Your task to perform on an android device: move an email to a new category in the gmail app Image 0: 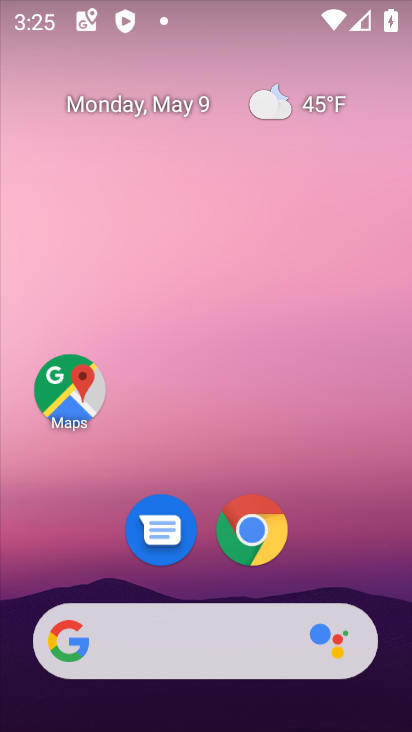
Step 0: drag from (334, 627) to (188, 17)
Your task to perform on an android device: move an email to a new category in the gmail app Image 1: 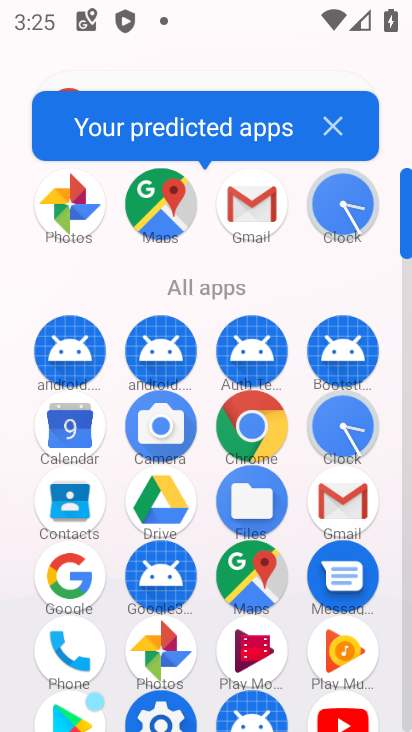
Step 1: click (341, 499)
Your task to perform on an android device: move an email to a new category in the gmail app Image 2: 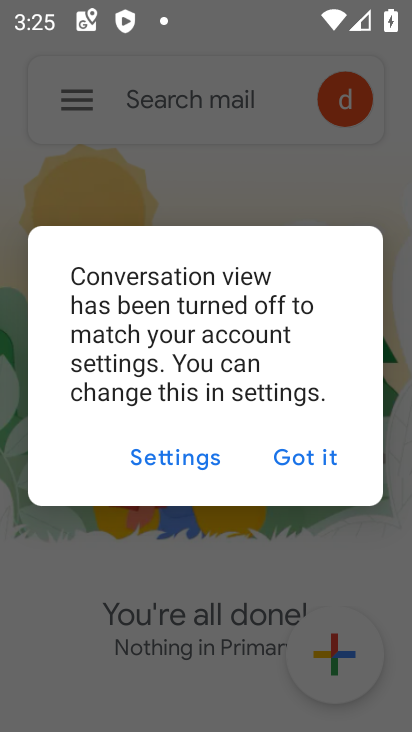
Step 2: click (280, 452)
Your task to perform on an android device: move an email to a new category in the gmail app Image 3: 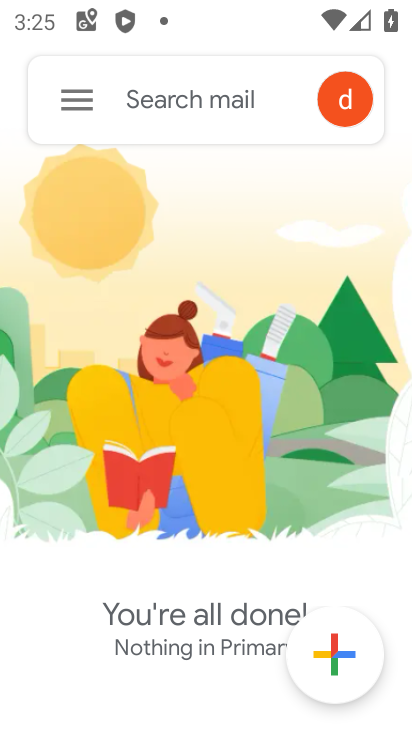
Step 3: click (78, 99)
Your task to perform on an android device: move an email to a new category in the gmail app Image 4: 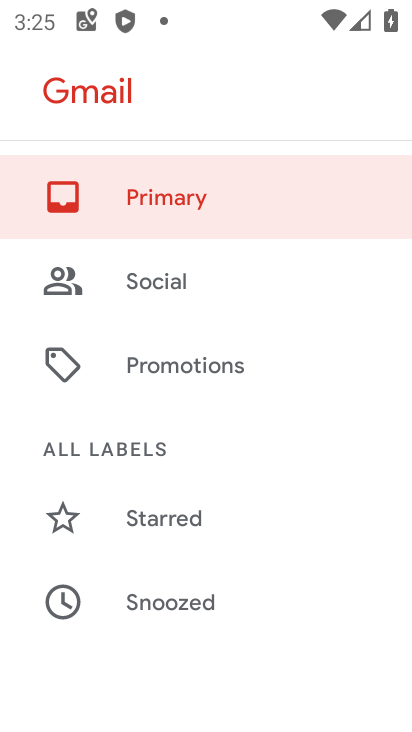
Step 4: drag from (155, 491) to (120, 18)
Your task to perform on an android device: move an email to a new category in the gmail app Image 5: 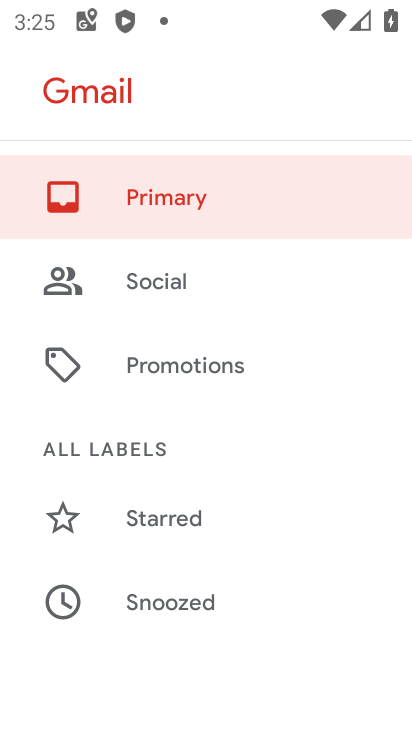
Step 5: drag from (168, 348) to (146, 4)
Your task to perform on an android device: move an email to a new category in the gmail app Image 6: 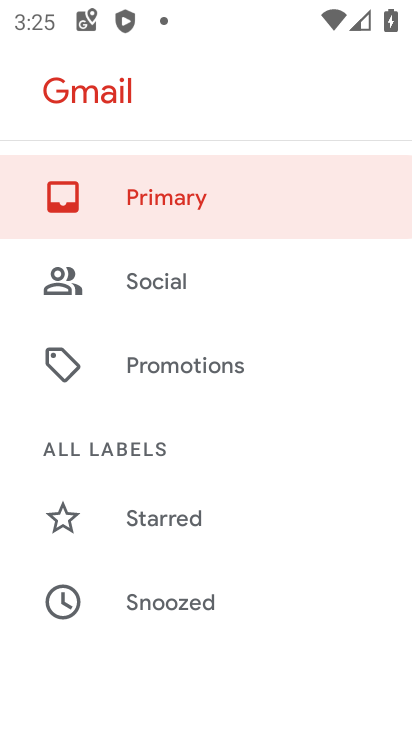
Step 6: drag from (257, 581) to (330, 25)
Your task to perform on an android device: move an email to a new category in the gmail app Image 7: 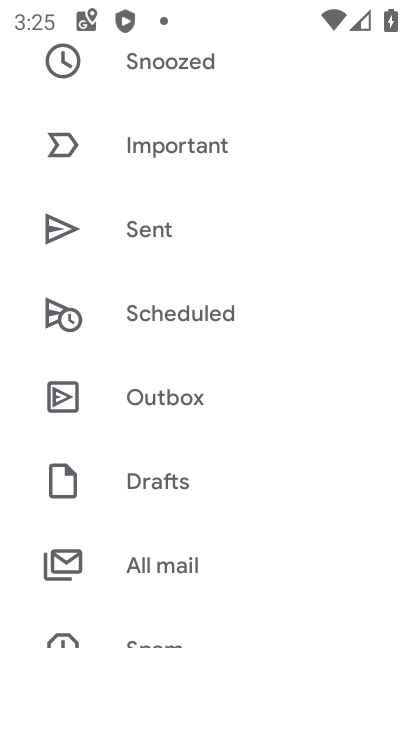
Step 7: click (210, 9)
Your task to perform on an android device: move an email to a new category in the gmail app Image 8: 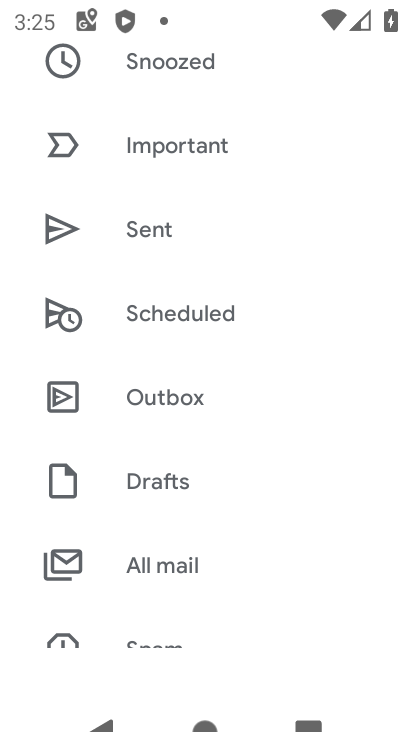
Step 8: drag from (214, 572) to (66, 23)
Your task to perform on an android device: move an email to a new category in the gmail app Image 9: 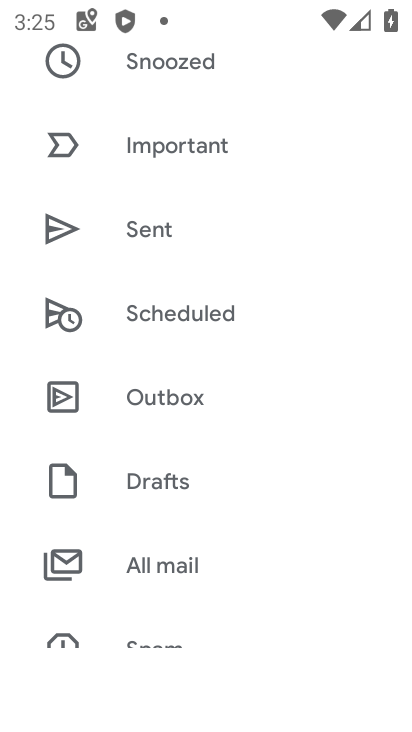
Step 9: click (165, 566)
Your task to perform on an android device: move an email to a new category in the gmail app Image 10: 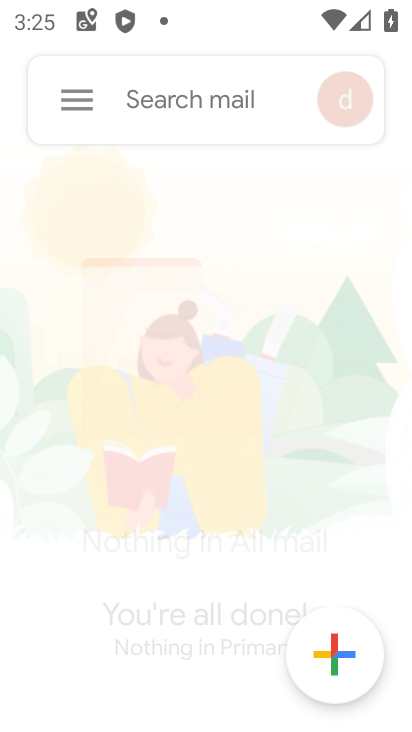
Step 10: click (171, 572)
Your task to perform on an android device: move an email to a new category in the gmail app Image 11: 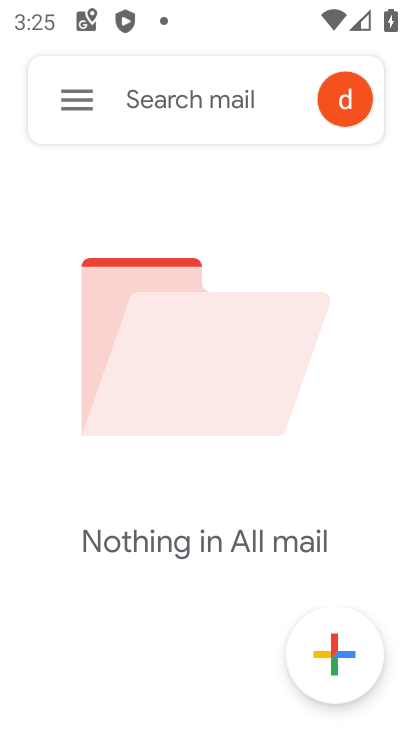
Step 11: task complete